Your task to perform on an android device: Search for vegetarian restaurants on Maps Image 0: 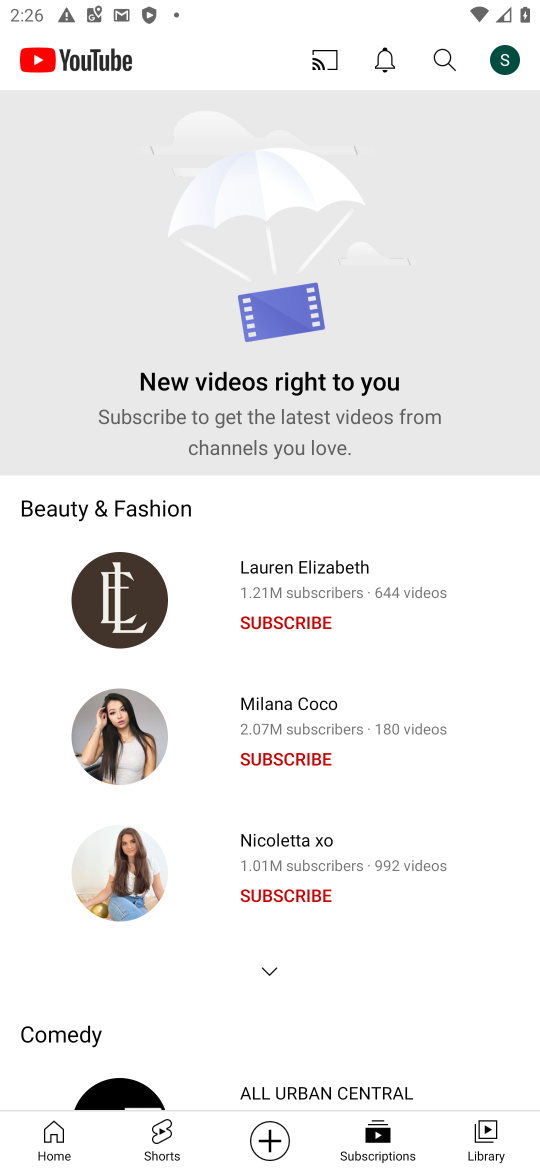
Step 0: press home button
Your task to perform on an android device: Search for vegetarian restaurants on Maps Image 1: 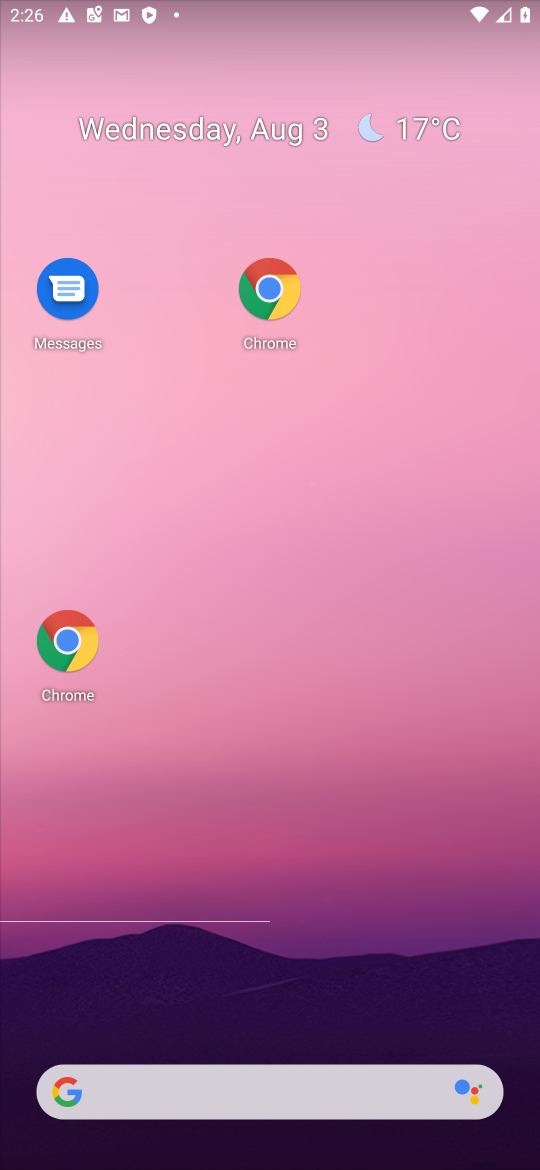
Step 1: drag from (299, 948) to (374, 81)
Your task to perform on an android device: Search for vegetarian restaurants on Maps Image 2: 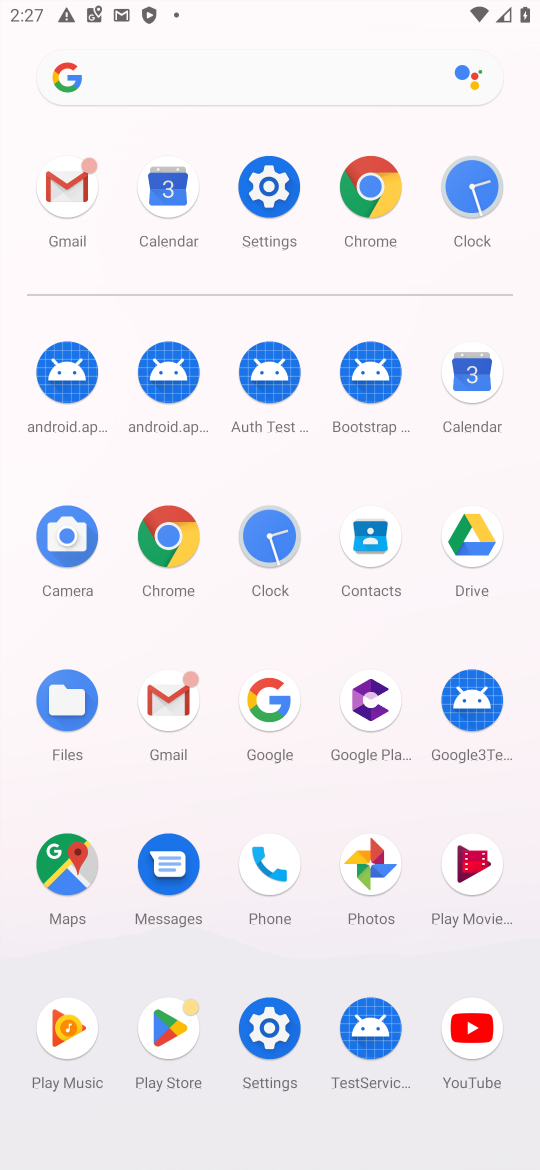
Step 2: click (44, 870)
Your task to perform on an android device: Search for vegetarian restaurants on Maps Image 3: 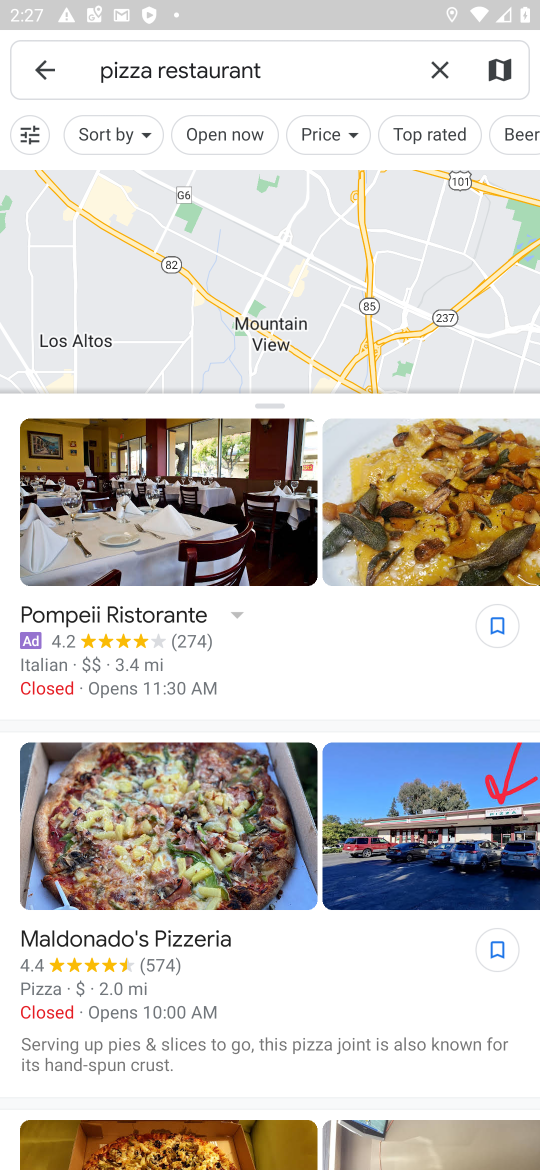
Step 3: click (435, 59)
Your task to perform on an android device: Search for vegetarian restaurants on Maps Image 4: 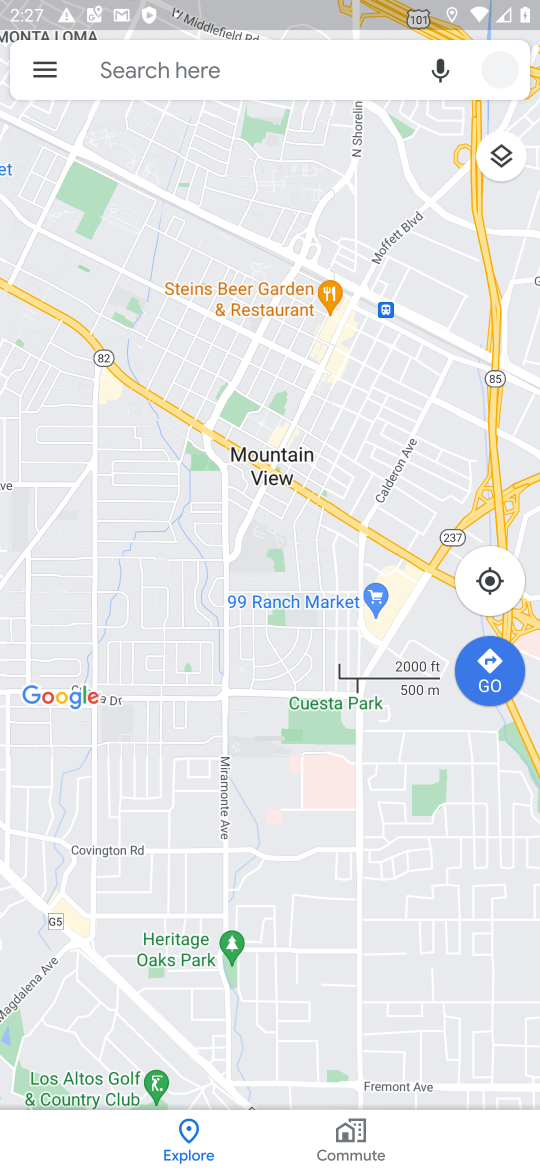
Step 4: click (364, 72)
Your task to perform on an android device: Search for vegetarian restaurants on Maps Image 5: 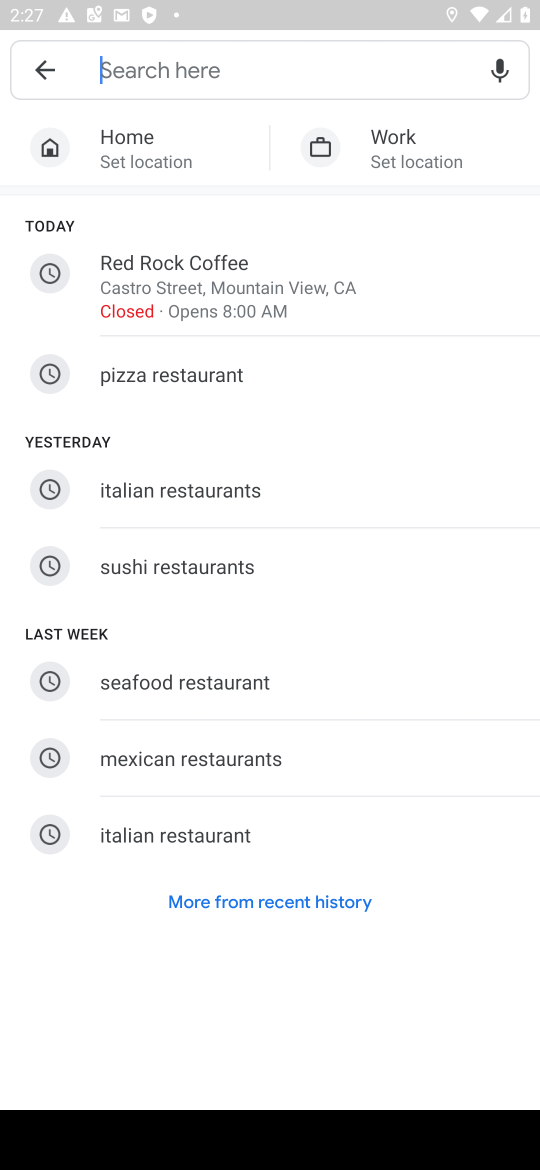
Step 5: type "vegetarian"
Your task to perform on an android device: Search for vegetarian restaurants on Maps Image 6: 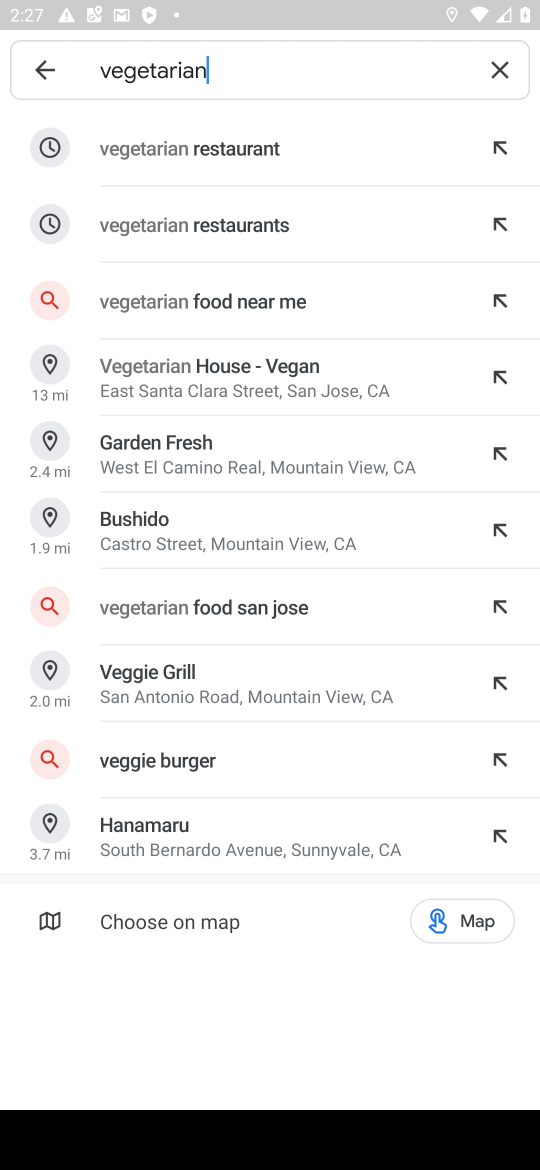
Step 6: click (159, 123)
Your task to perform on an android device: Search for vegetarian restaurants on Maps Image 7: 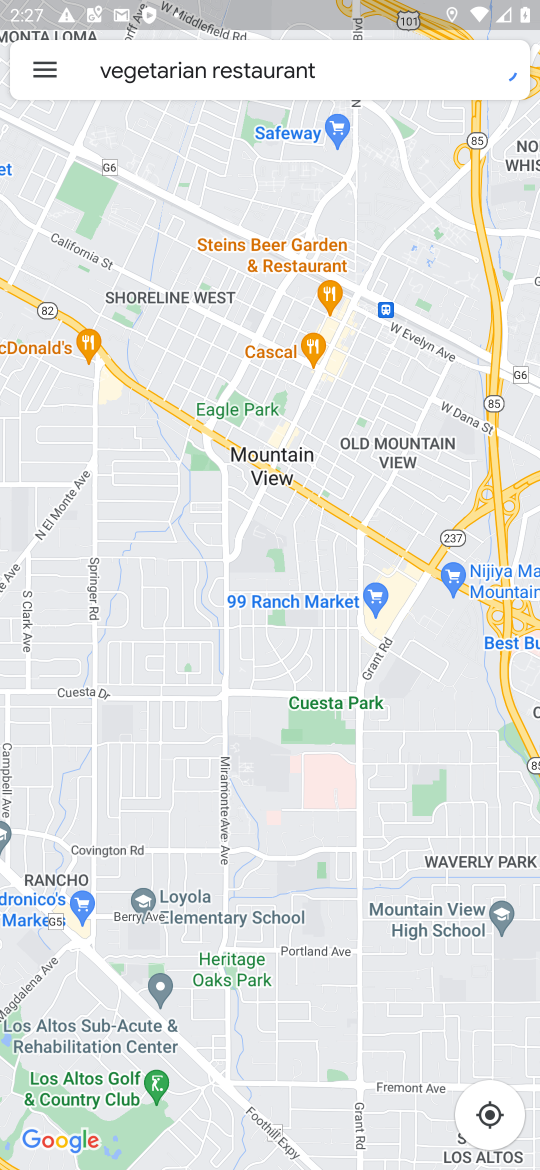
Step 7: task complete